Your task to perform on an android device: Open location settings Image 0: 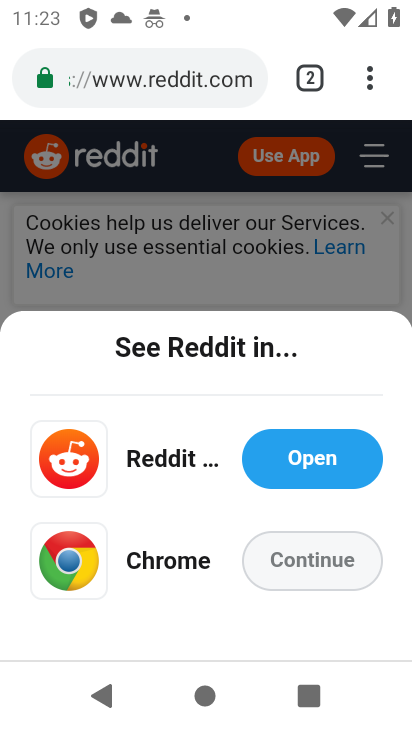
Step 0: drag from (207, 617) to (328, 142)
Your task to perform on an android device: Open location settings Image 1: 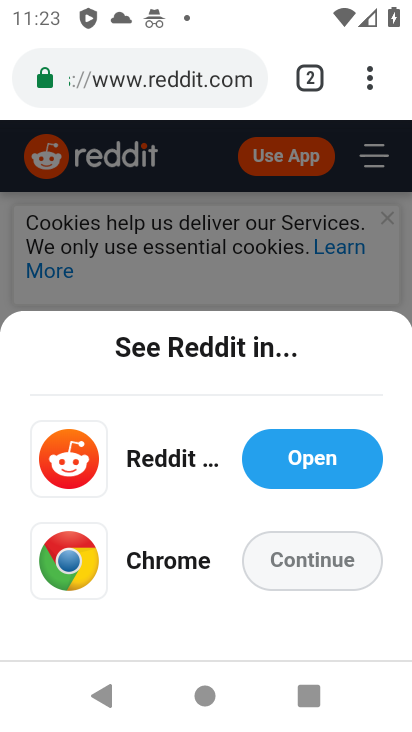
Step 1: press home button
Your task to perform on an android device: Open location settings Image 2: 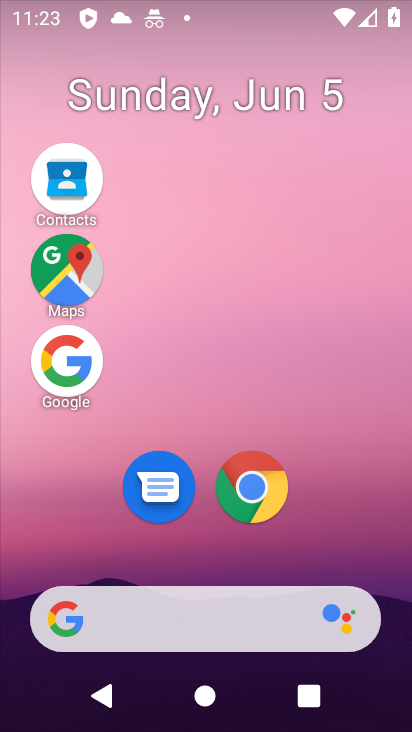
Step 2: drag from (235, 542) to (319, 48)
Your task to perform on an android device: Open location settings Image 3: 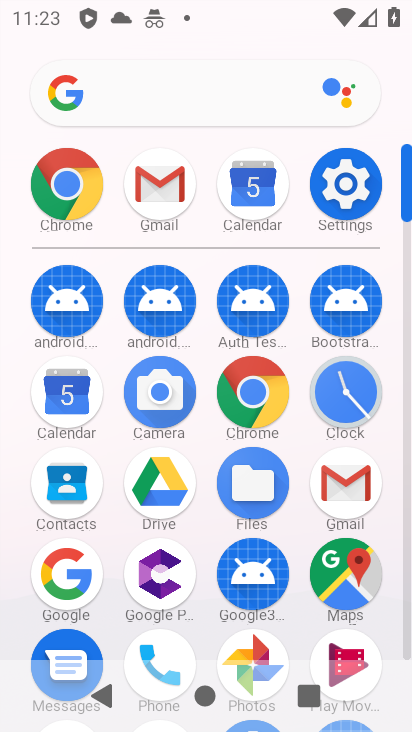
Step 3: click (344, 185)
Your task to perform on an android device: Open location settings Image 4: 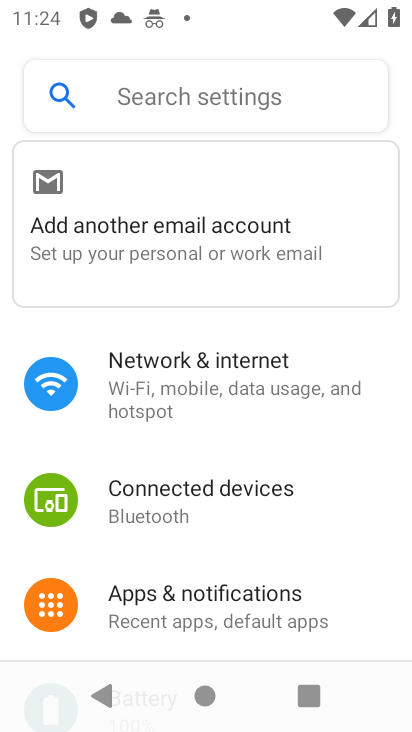
Step 4: drag from (251, 547) to (311, 155)
Your task to perform on an android device: Open location settings Image 5: 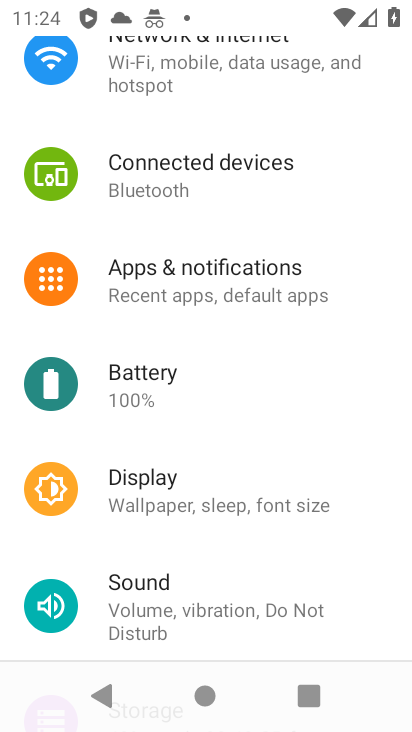
Step 5: drag from (223, 537) to (295, 264)
Your task to perform on an android device: Open location settings Image 6: 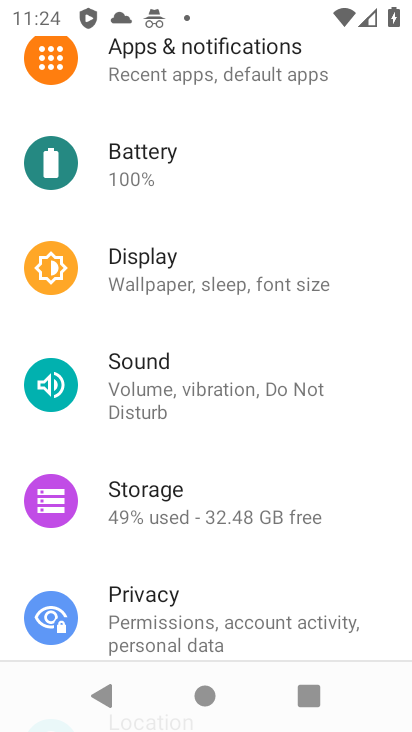
Step 6: drag from (181, 531) to (253, 231)
Your task to perform on an android device: Open location settings Image 7: 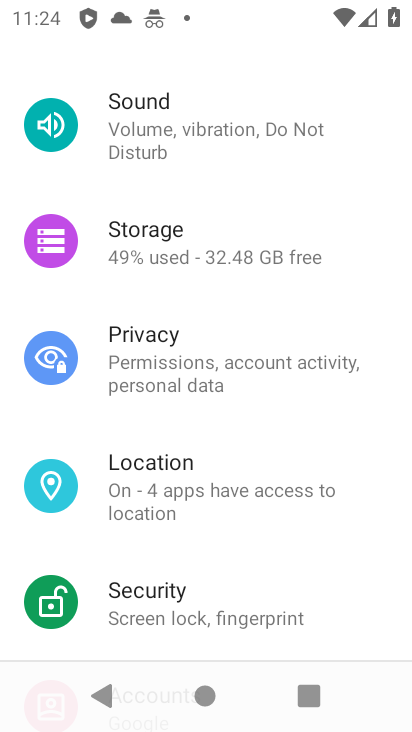
Step 7: click (219, 481)
Your task to perform on an android device: Open location settings Image 8: 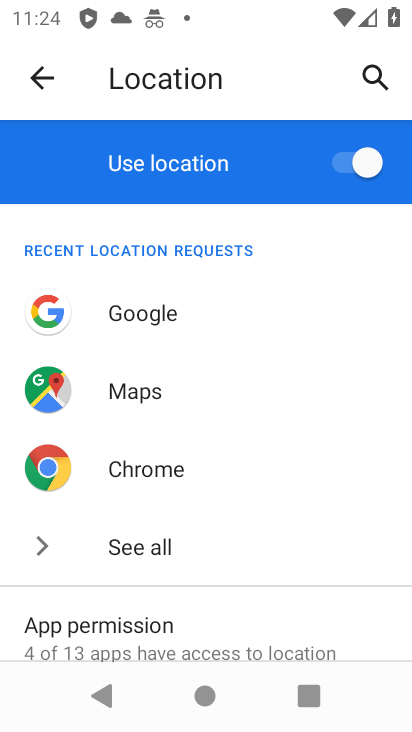
Step 8: drag from (203, 555) to (272, 152)
Your task to perform on an android device: Open location settings Image 9: 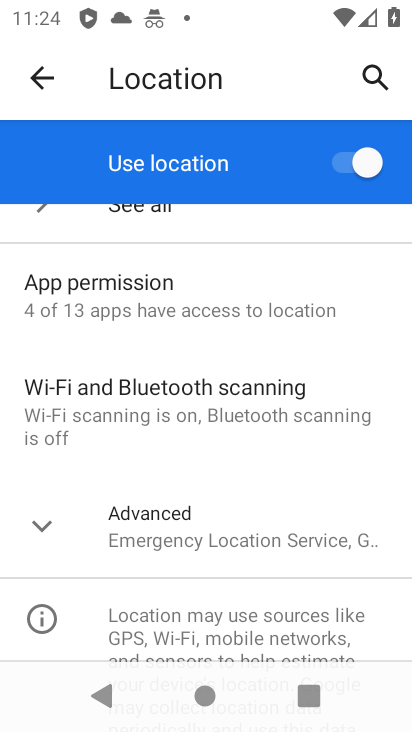
Step 9: click (234, 522)
Your task to perform on an android device: Open location settings Image 10: 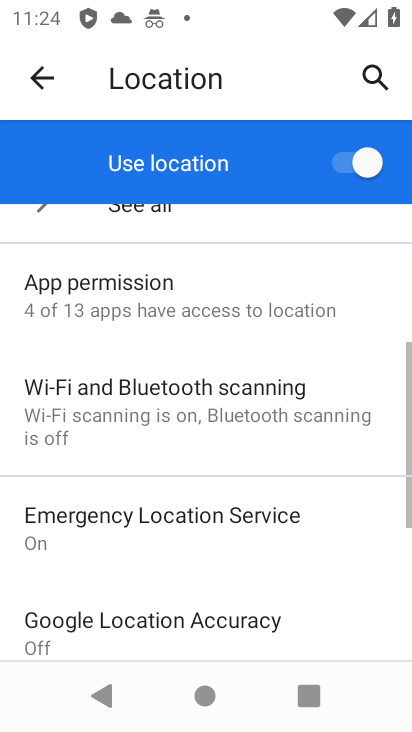
Step 10: drag from (235, 501) to (263, 241)
Your task to perform on an android device: Open location settings Image 11: 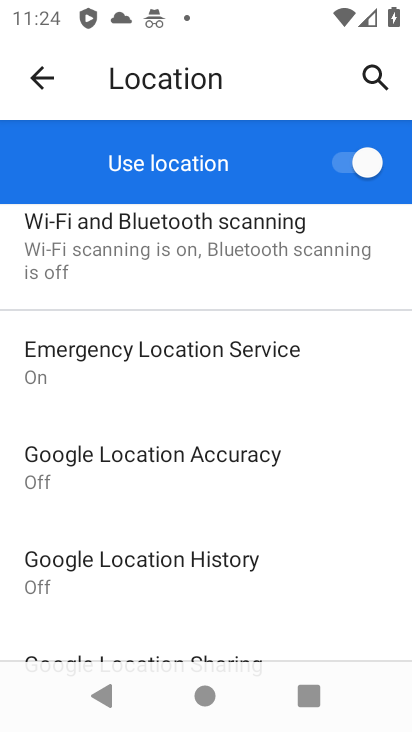
Step 11: click (213, 578)
Your task to perform on an android device: Open location settings Image 12: 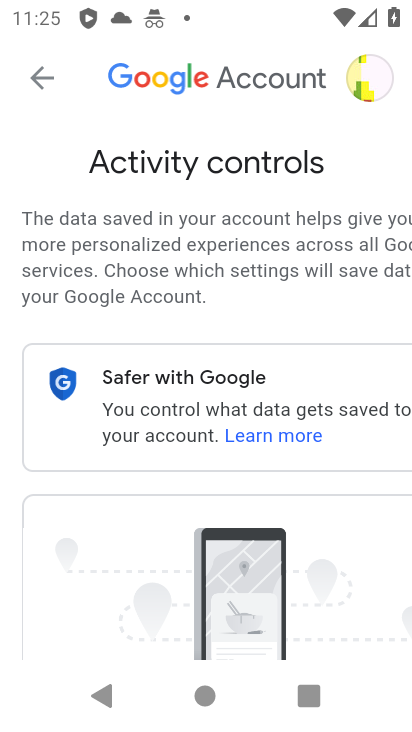
Step 12: task complete